Your task to perform on an android device: read, delete, or share a saved page in the chrome app Image 0: 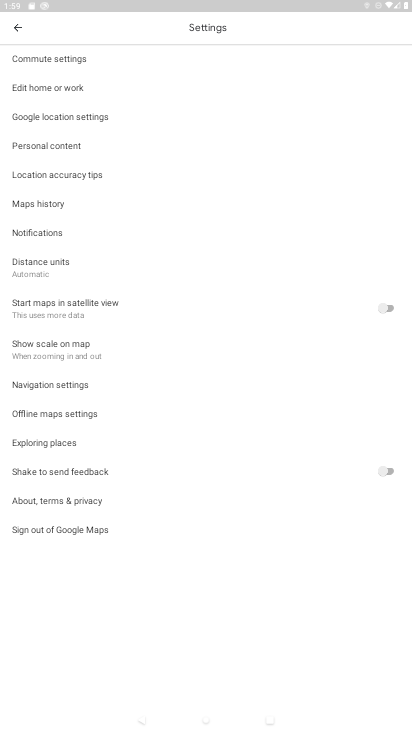
Step 0: press home button
Your task to perform on an android device: read, delete, or share a saved page in the chrome app Image 1: 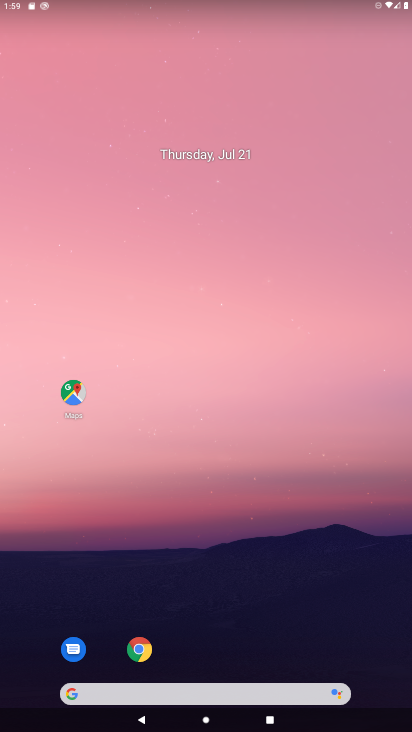
Step 1: drag from (282, 598) to (214, 65)
Your task to perform on an android device: read, delete, or share a saved page in the chrome app Image 2: 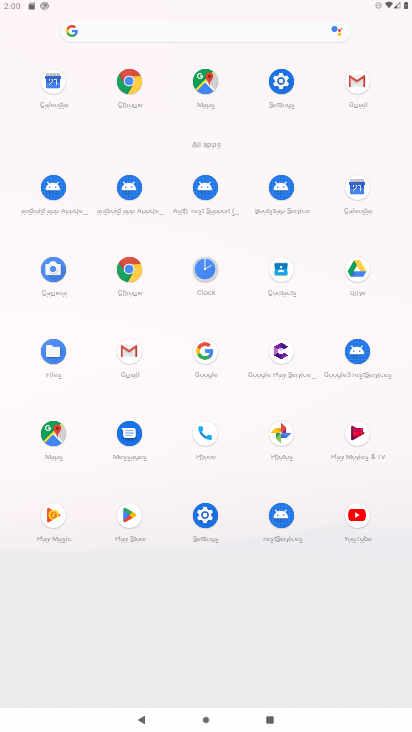
Step 2: click (130, 83)
Your task to perform on an android device: read, delete, or share a saved page in the chrome app Image 3: 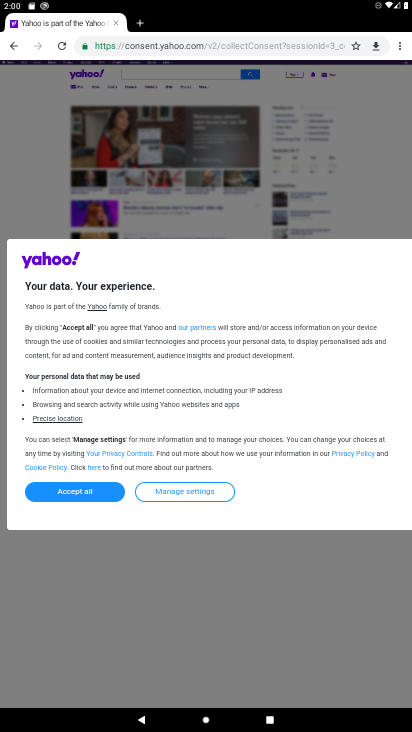
Step 3: drag from (402, 49) to (328, 166)
Your task to perform on an android device: read, delete, or share a saved page in the chrome app Image 4: 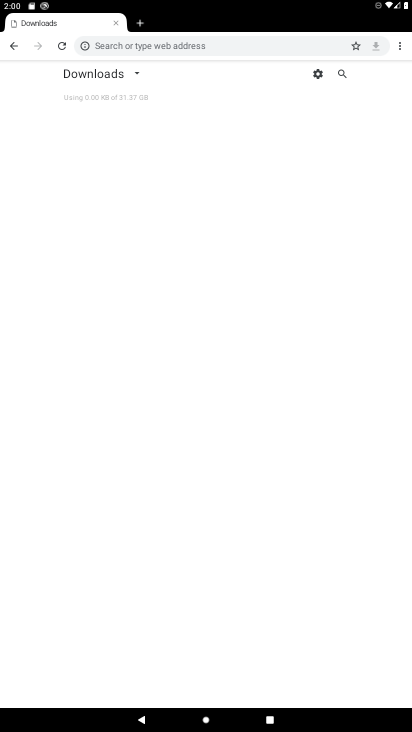
Step 4: click (124, 69)
Your task to perform on an android device: read, delete, or share a saved page in the chrome app Image 5: 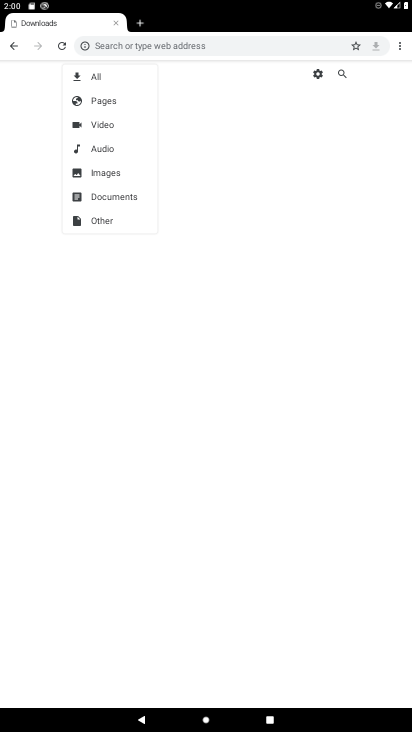
Step 5: click (107, 105)
Your task to perform on an android device: read, delete, or share a saved page in the chrome app Image 6: 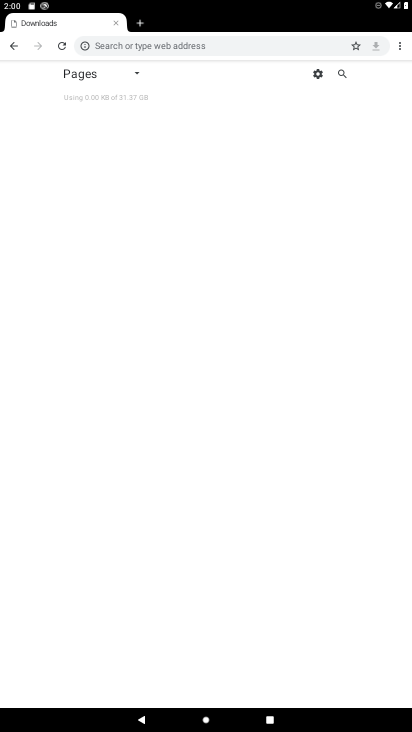
Step 6: task complete